Your task to perform on an android device: change notification settings in the gmail app Image 0: 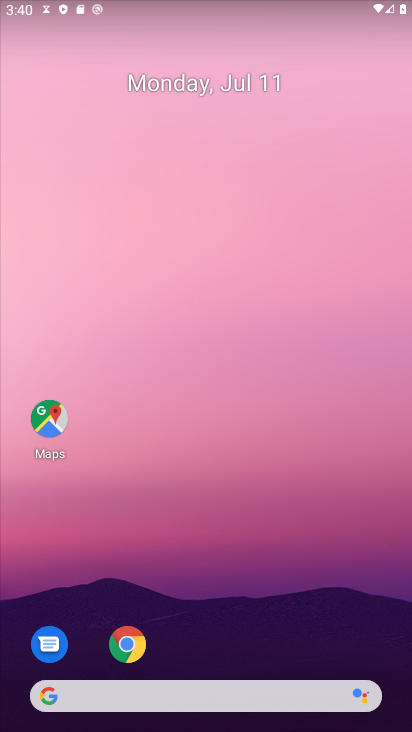
Step 0: drag from (208, 712) to (182, 143)
Your task to perform on an android device: change notification settings in the gmail app Image 1: 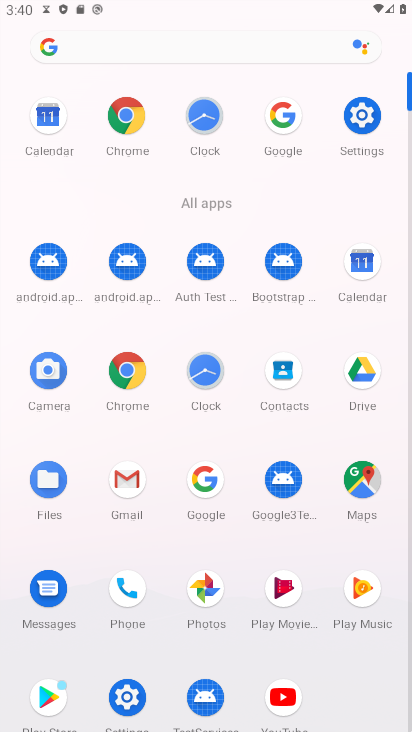
Step 1: click (122, 478)
Your task to perform on an android device: change notification settings in the gmail app Image 2: 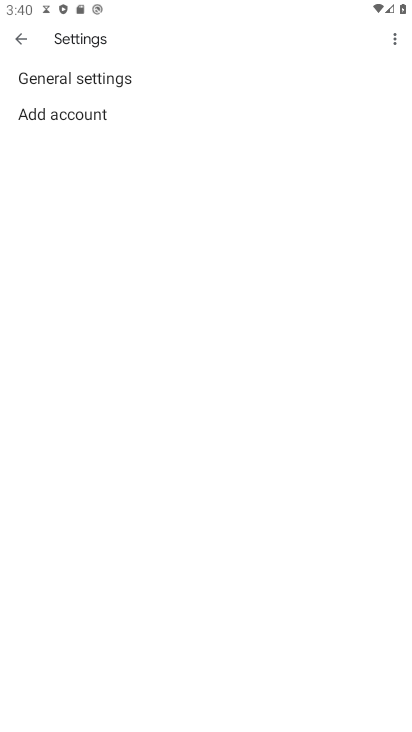
Step 2: click (20, 41)
Your task to perform on an android device: change notification settings in the gmail app Image 3: 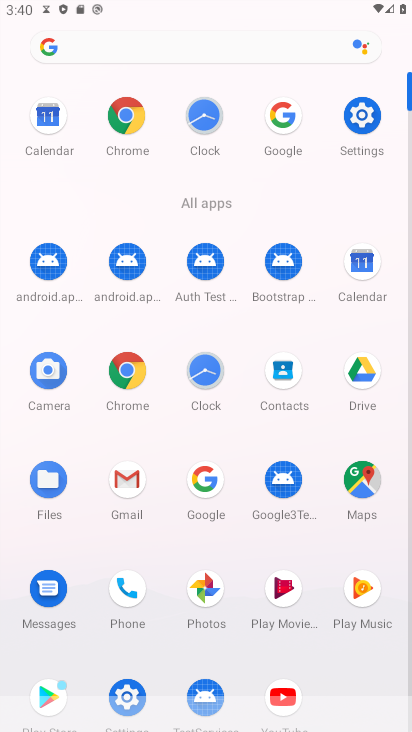
Step 3: click (131, 486)
Your task to perform on an android device: change notification settings in the gmail app Image 4: 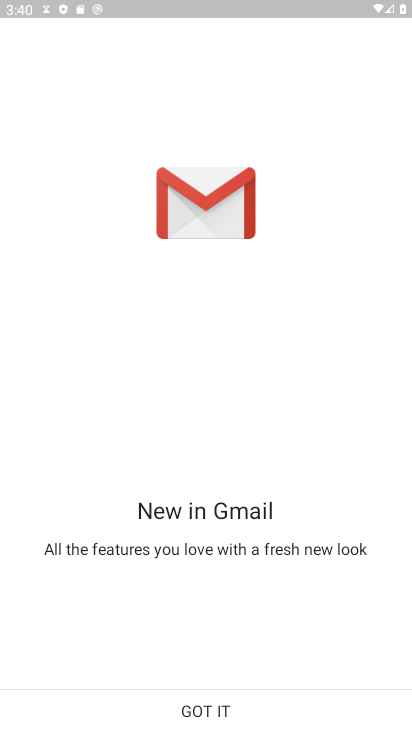
Step 4: click (191, 706)
Your task to perform on an android device: change notification settings in the gmail app Image 5: 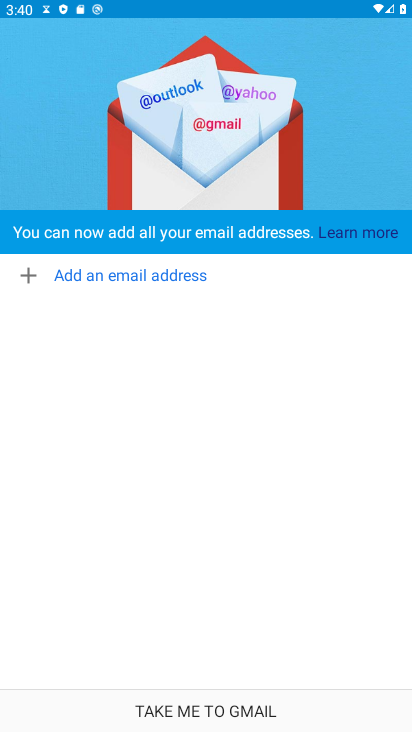
Step 5: click (191, 706)
Your task to perform on an android device: change notification settings in the gmail app Image 6: 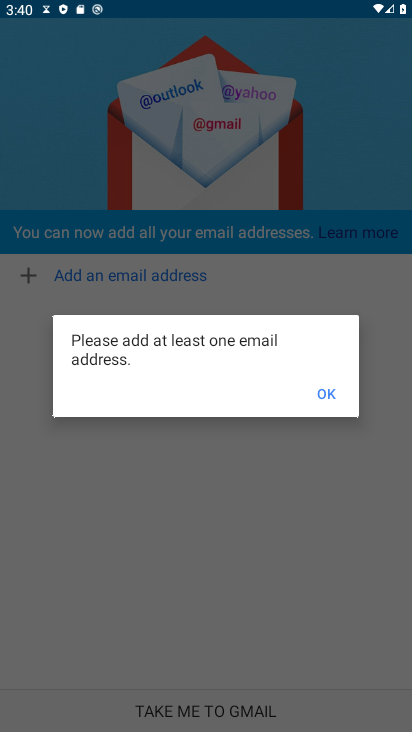
Step 6: click (328, 390)
Your task to perform on an android device: change notification settings in the gmail app Image 7: 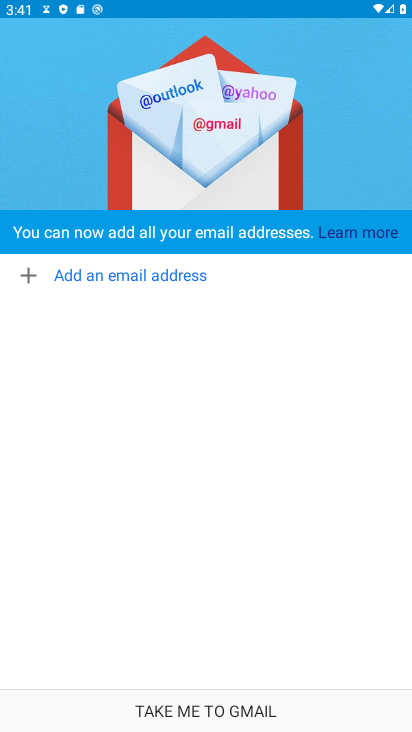
Step 7: task complete